Your task to perform on an android device: Open the calendar and show me this week's events? Image 0: 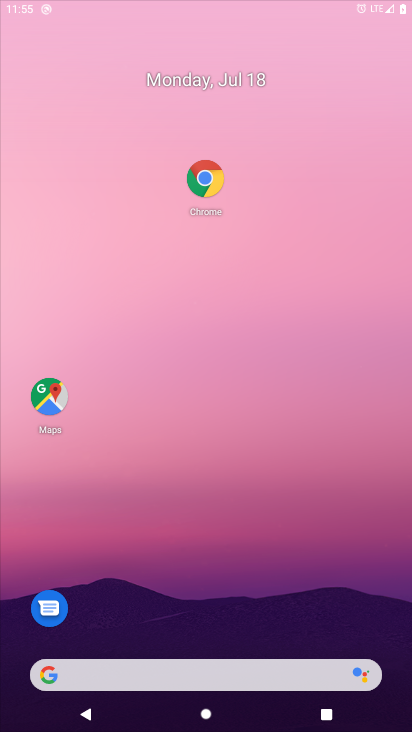
Step 0: click (233, 109)
Your task to perform on an android device: Open the calendar and show me this week's events? Image 1: 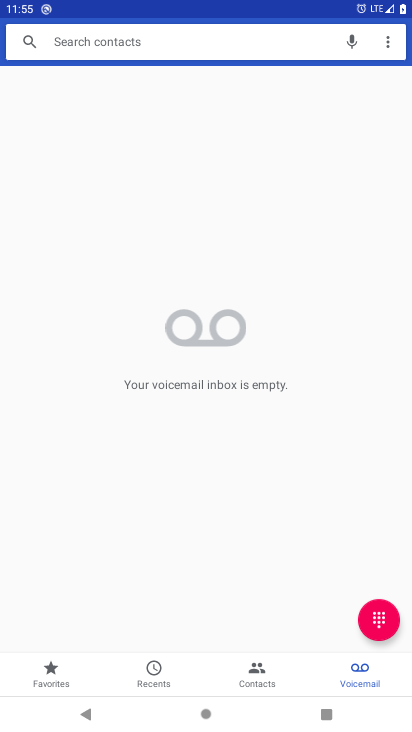
Step 1: press home button
Your task to perform on an android device: Open the calendar and show me this week's events? Image 2: 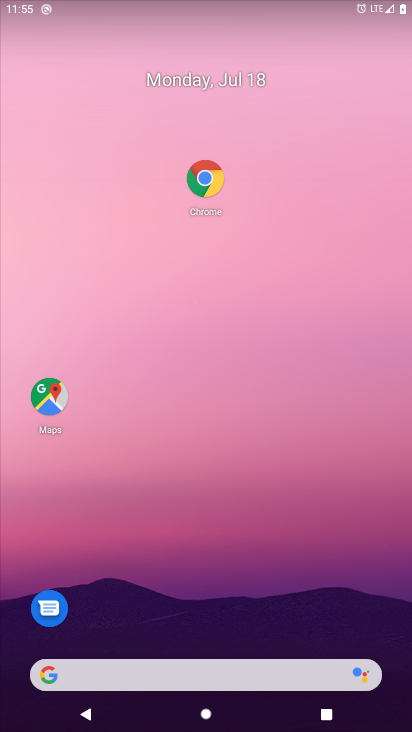
Step 2: drag from (37, 684) to (197, 43)
Your task to perform on an android device: Open the calendar and show me this week's events? Image 3: 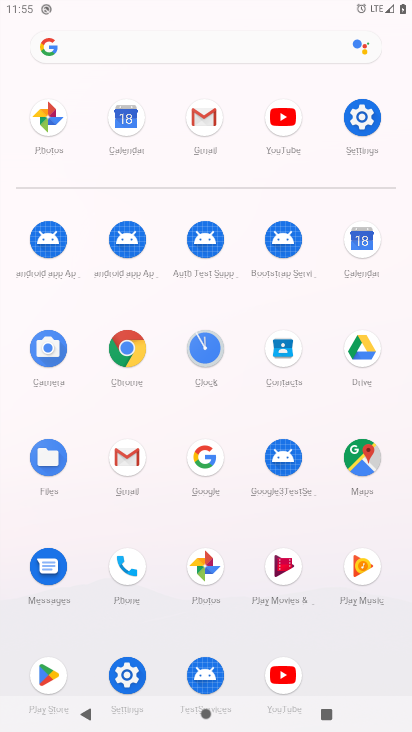
Step 3: click (353, 251)
Your task to perform on an android device: Open the calendar and show me this week's events? Image 4: 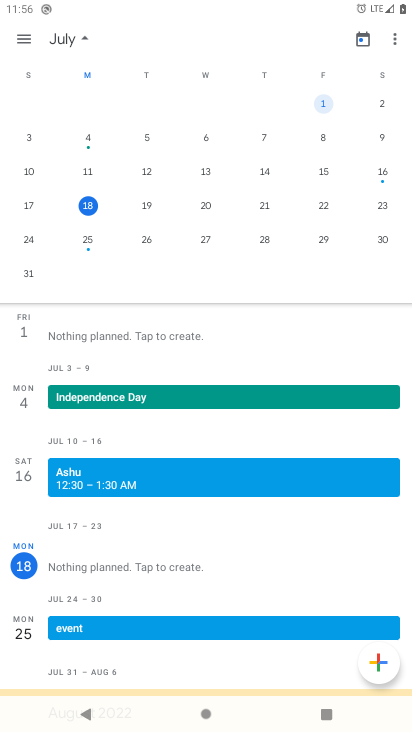
Step 4: task complete